Your task to perform on an android device: Open Chrome and go to the settings page Image 0: 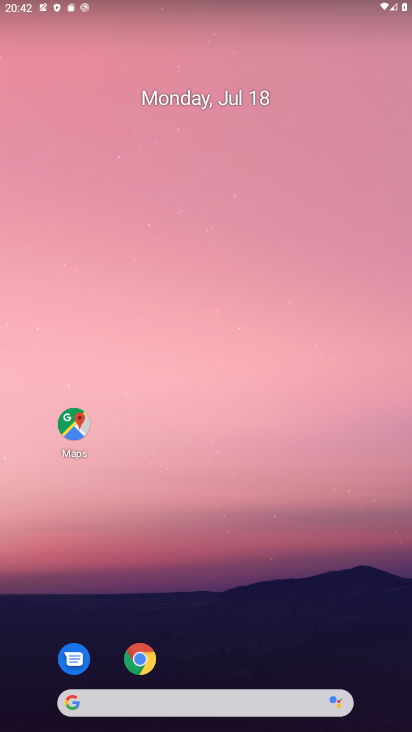
Step 0: drag from (266, 496) to (266, 120)
Your task to perform on an android device: Open Chrome and go to the settings page Image 1: 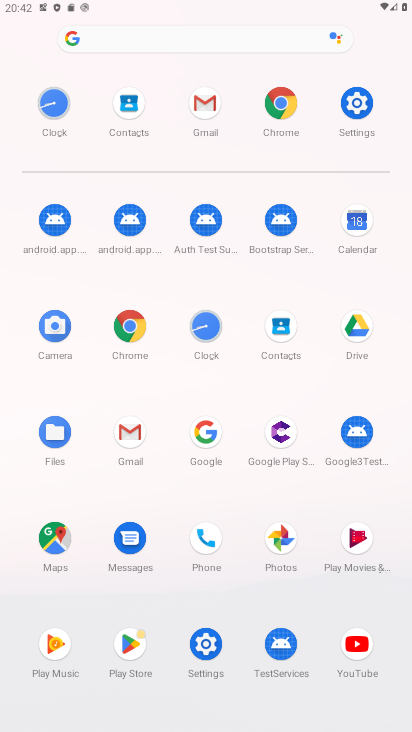
Step 1: click (344, 107)
Your task to perform on an android device: Open Chrome and go to the settings page Image 2: 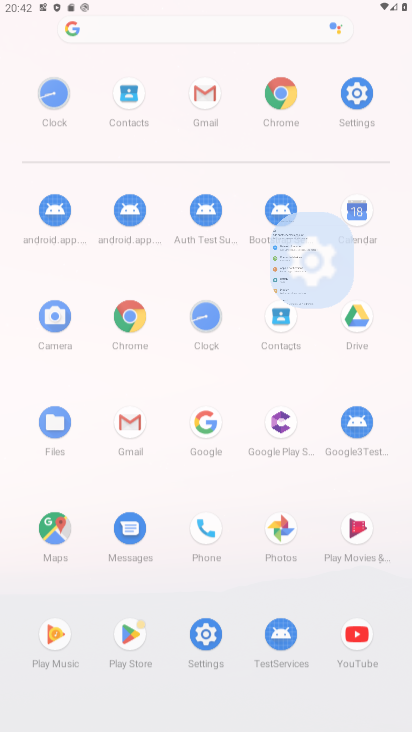
Step 2: click (283, 110)
Your task to perform on an android device: Open Chrome and go to the settings page Image 3: 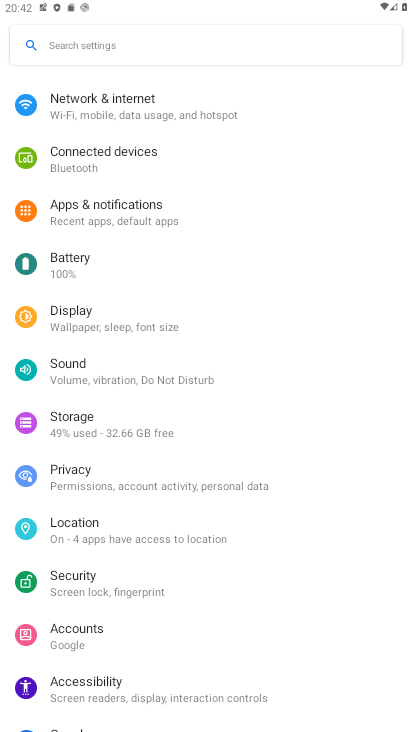
Step 3: click (276, 106)
Your task to perform on an android device: Open Chrome and go to the settings page Image 4: 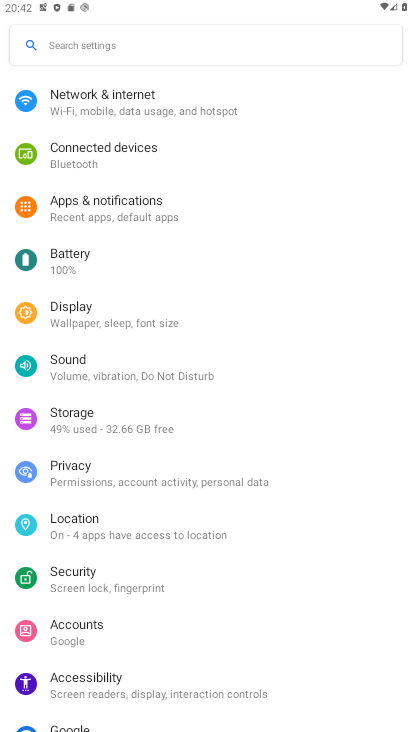
Step 4: click (276, 106)
Your task to perform on an android device: Open Chrome and go to the settings page Image 5: 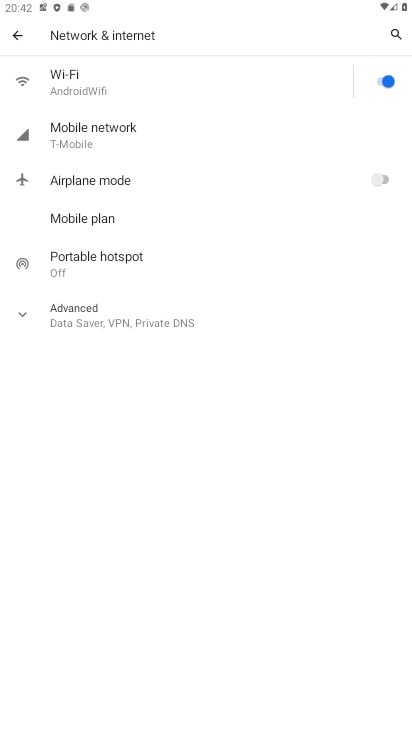
Step 5: click (8, 51)
Your task to perform on an android device: Open Chrome and go to the settings page Image 6: 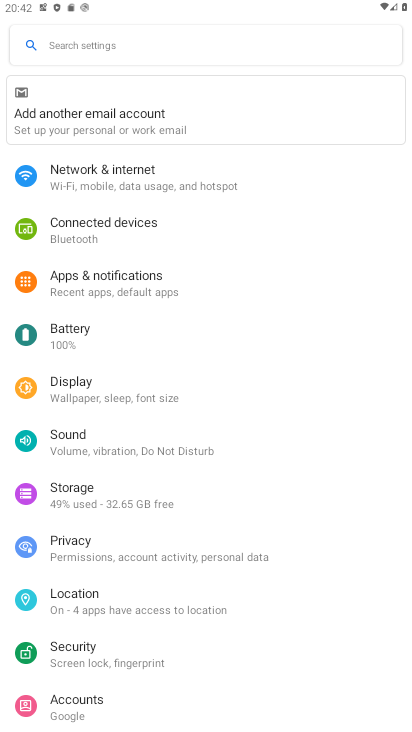
Step 6: press back button
Your task to perform on an android device: Open Chrome and go to the settings page Image 7: 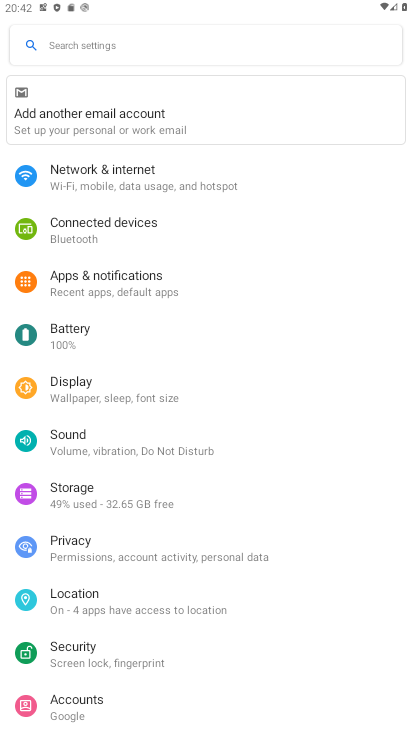
Step 7: press back button
Your task to perform on an android device: Open Chrome and go to the settings page Image 8: 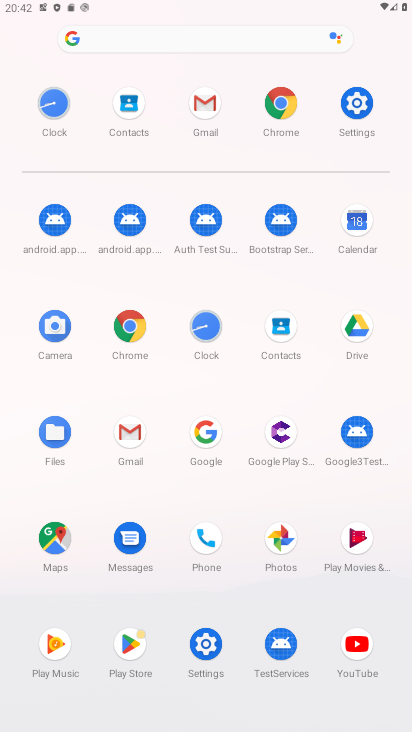
Step 8: click (285, 117)
Your task to perform on an android device: Open Chrome and go to the settings page Image 9: 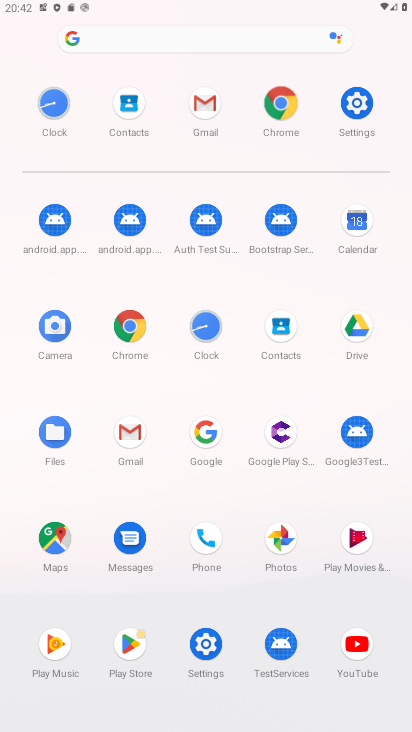
Step 9: click (285, 117)
Your task to perform on an android device: Open Chrome and go to the settings page Image 10: 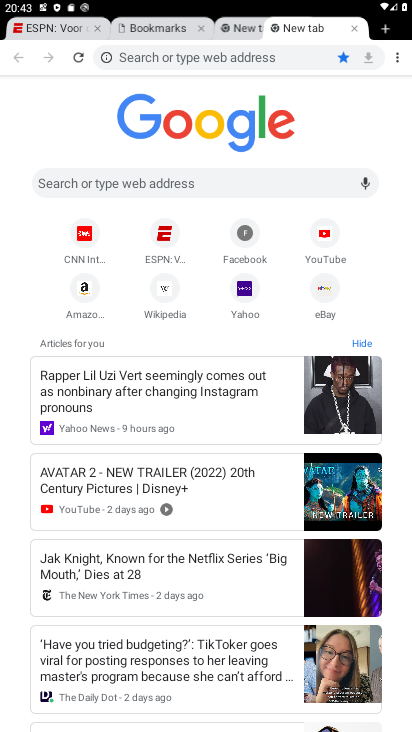
Step 10: drag from (399, 52) to (279, 262)
Your task to perform on an android device: Open Chrome and go to the settings page Image 11: 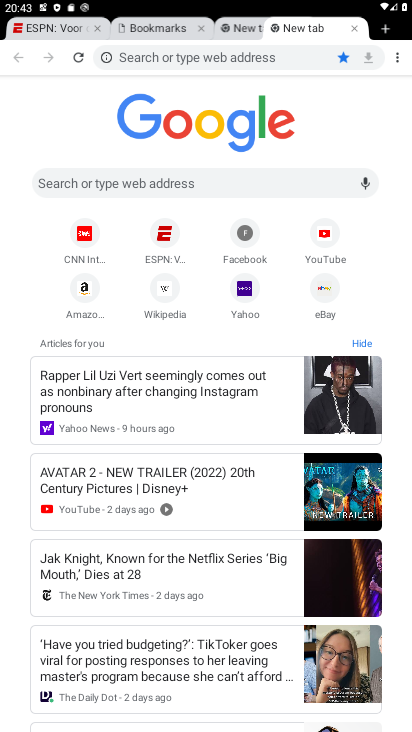
Step 11: click (280, 263)
Your task to perform on an android device: Open Chrome and go to the settings page Image 12: 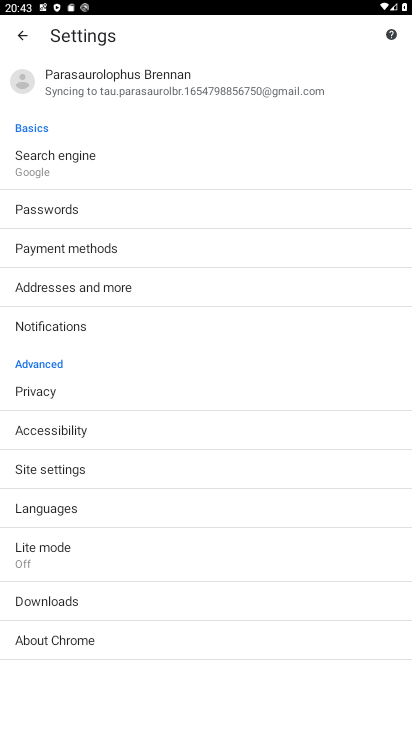
Step 12: task complete